Your task to perform on an android device: Go to accessibility settings Image 0: 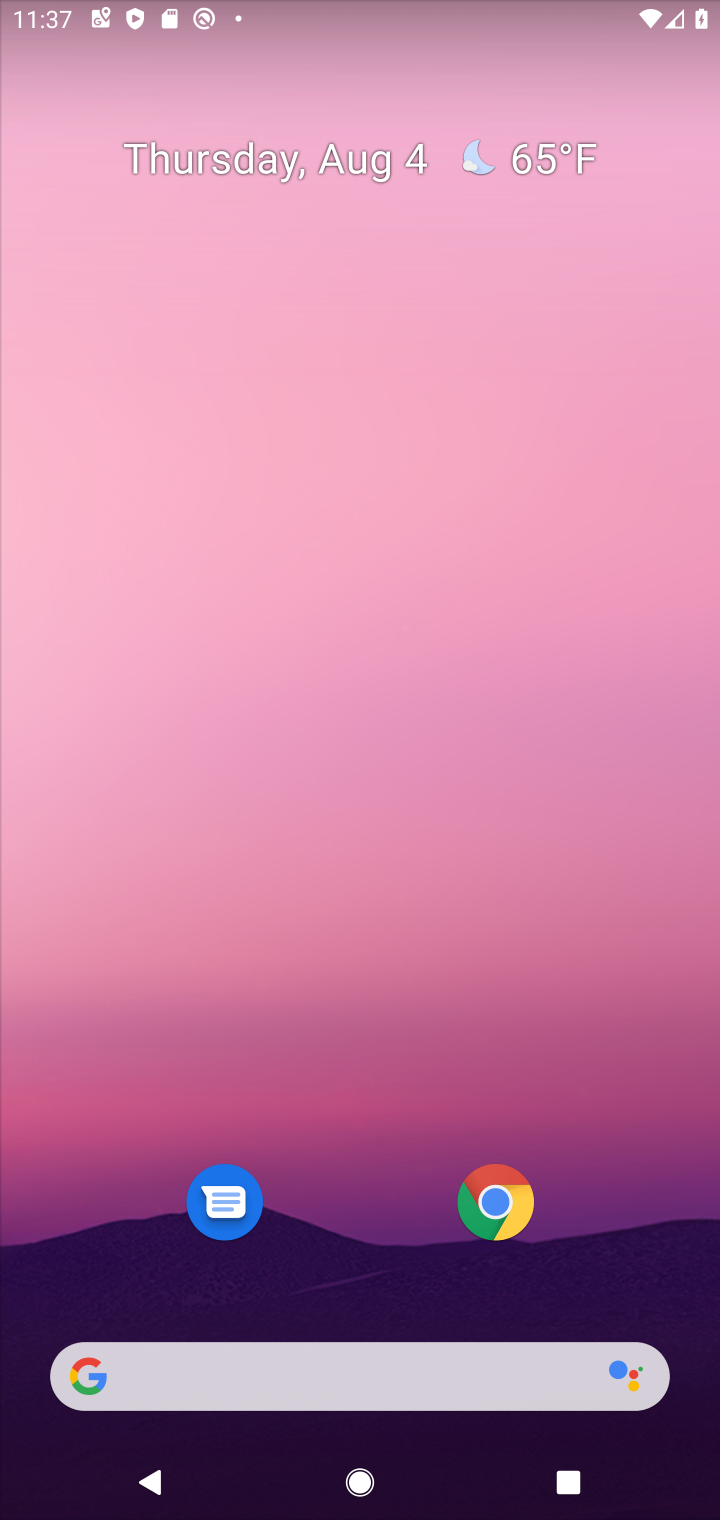
Step 0: drag from (379, 1115) to (384, 103)
Your task to perform on an android device: Go to accessibility settings Image 1: 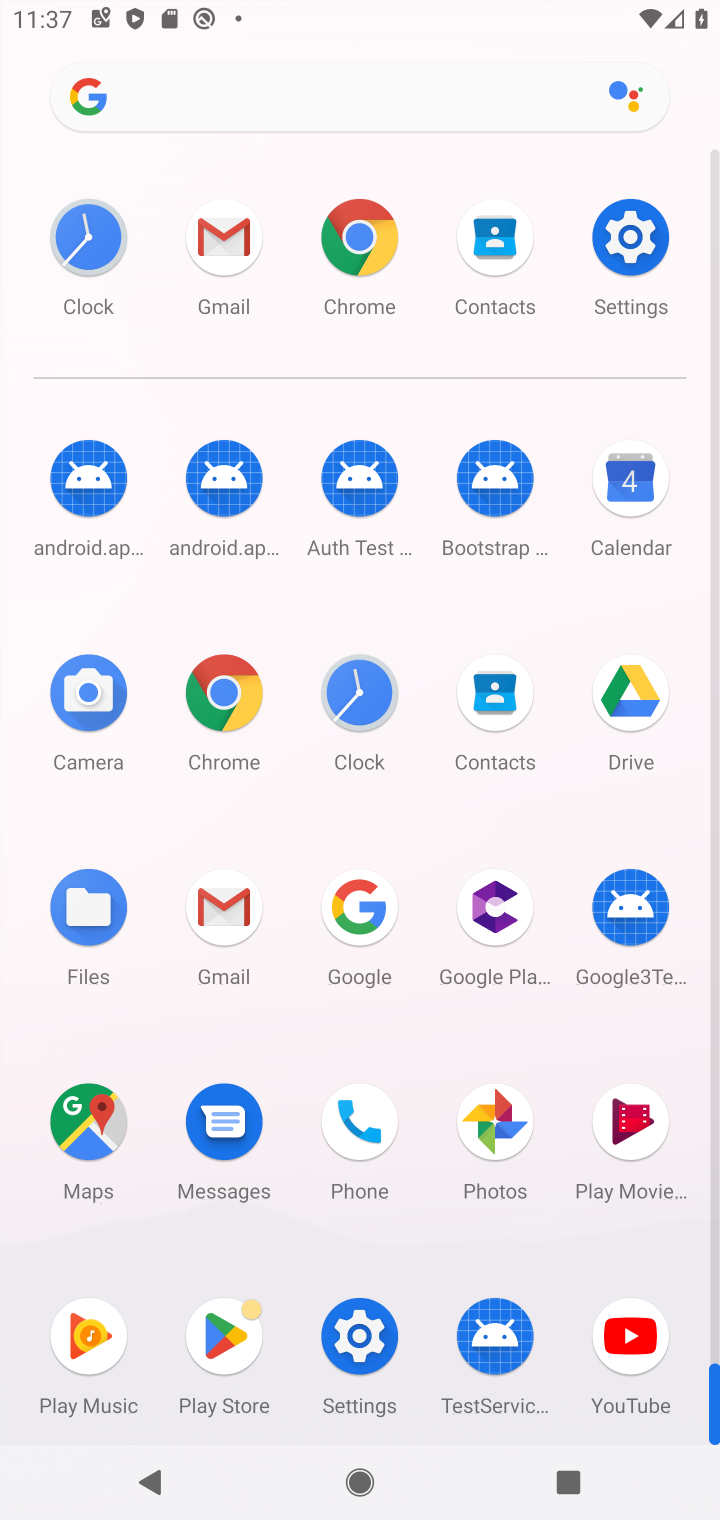
Step 1: click (622, 233)
Your task to perform on an android device: Go to accessibility settings Image 2: 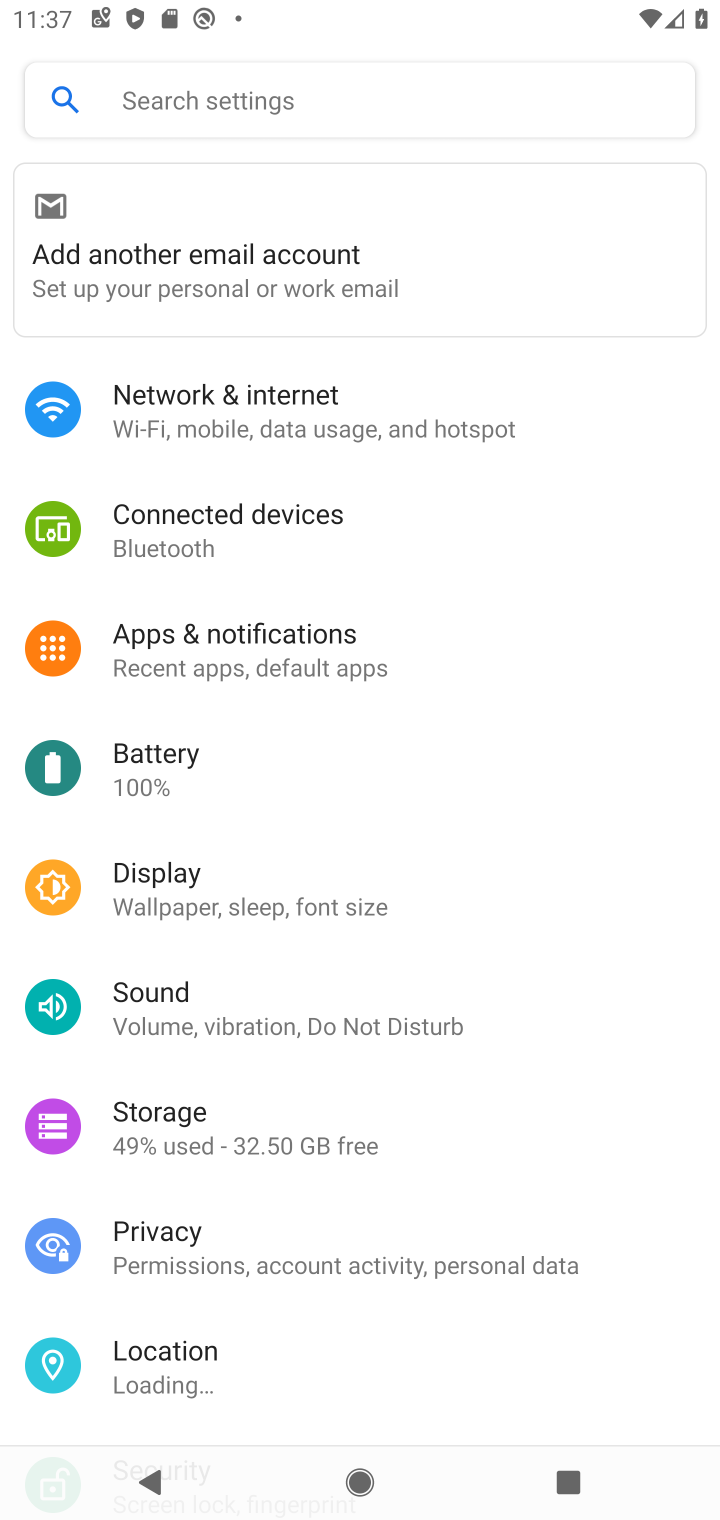
Step 2: drag from (276, 1318) to (466, 217)
Your task to perform on an android device: Go to accessibility settings Image 3: 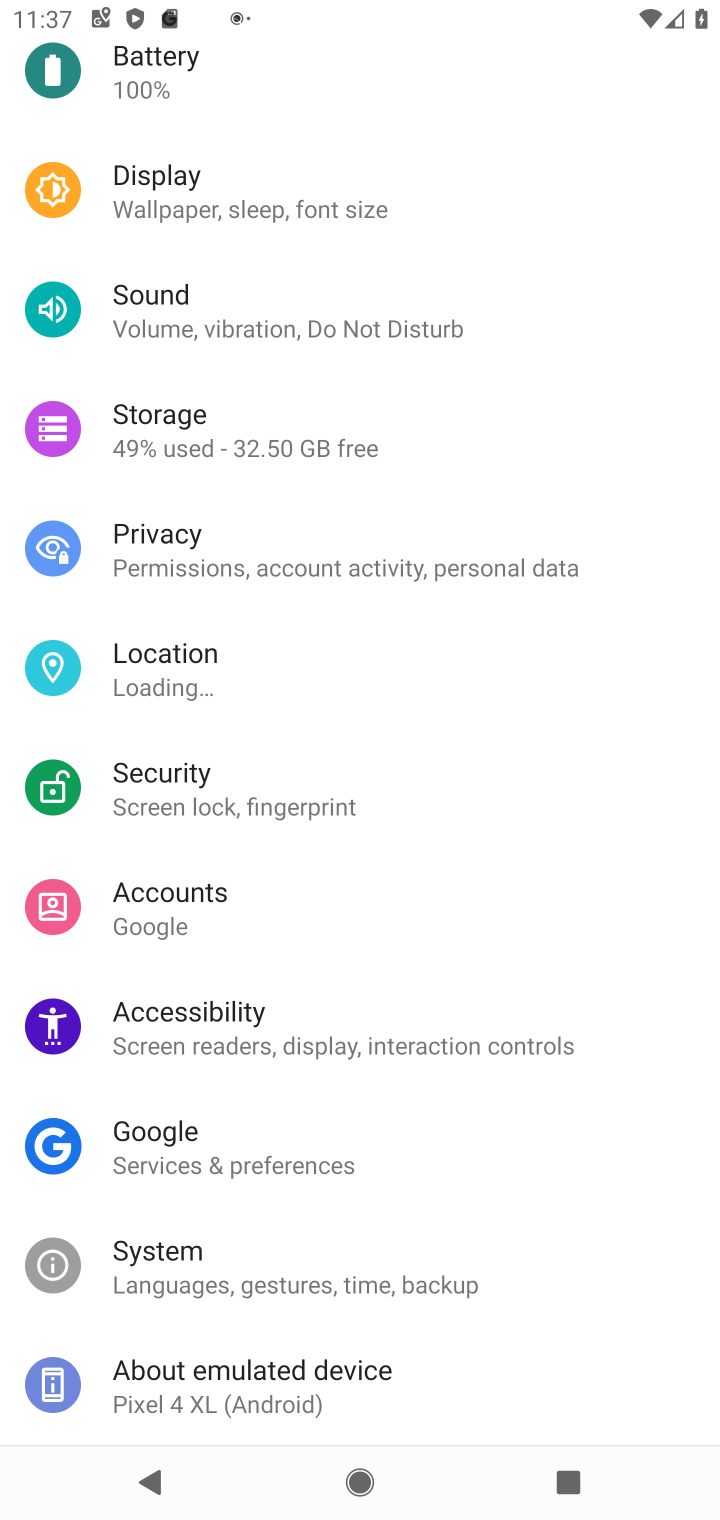
Step 3: click (189, 1003)
Your task to perform on an android device: Go to accessibility settings Image 4: 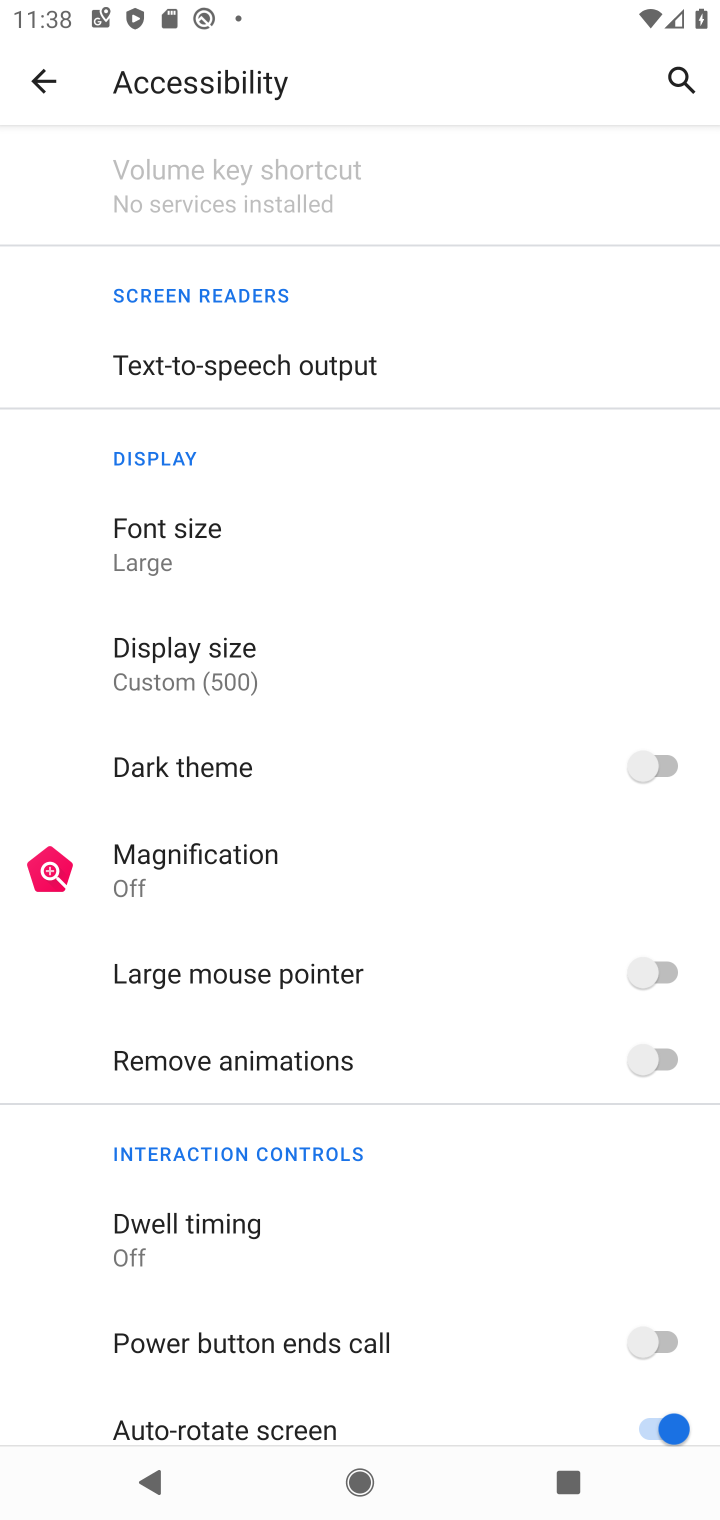
Step 4: task complete